Your task to perform on an android device: toggle show notifications on the lock screen Image 0: 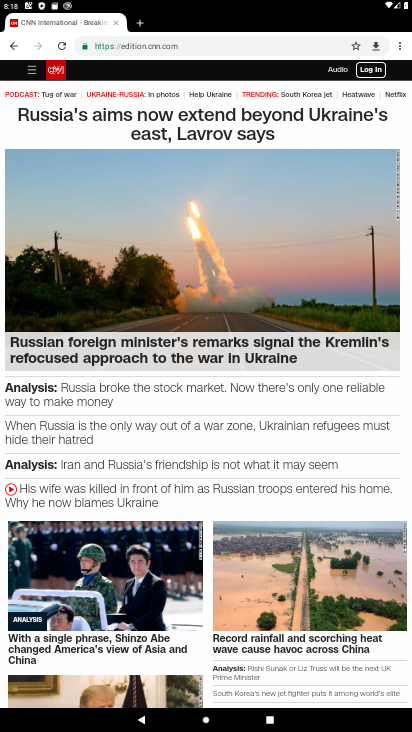
Step 0: press home button
Your task to perform on an android device: toggle show notifications on the lock screen Image 1: 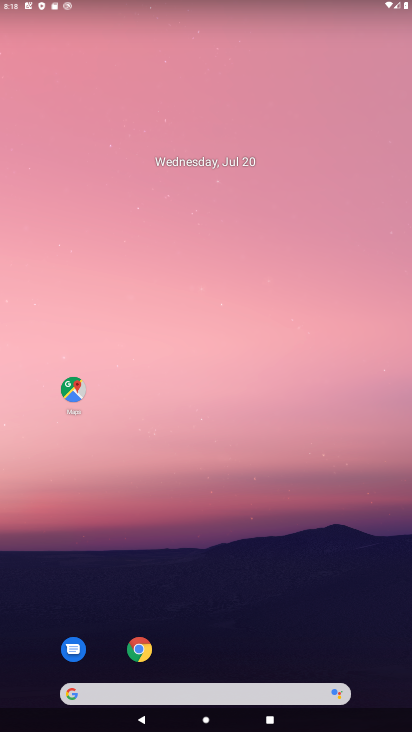
Step 1: drag from (187, 696) to (143, 63)
Your task to perform on an android device: toggle show notifications on the lock screen Image 2: 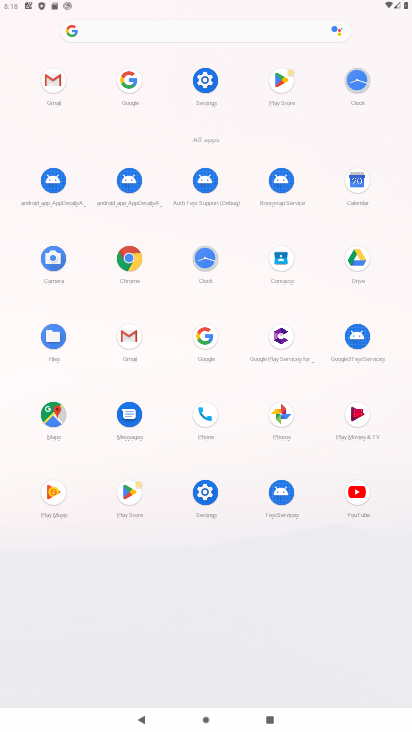
Step 2: click (205, 79)
Your task to perform on an android device: toggle show notifications on the lock screen Image 3: 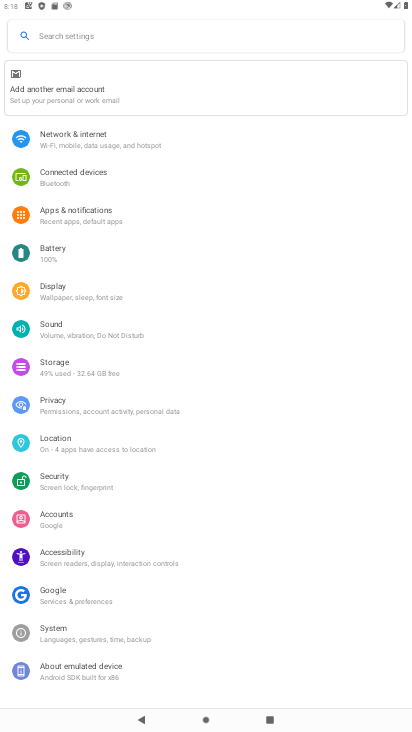
Step 3: click (75, 213)
Your task to perform on an android device: toggle show notifications on the lock screen Image 4: 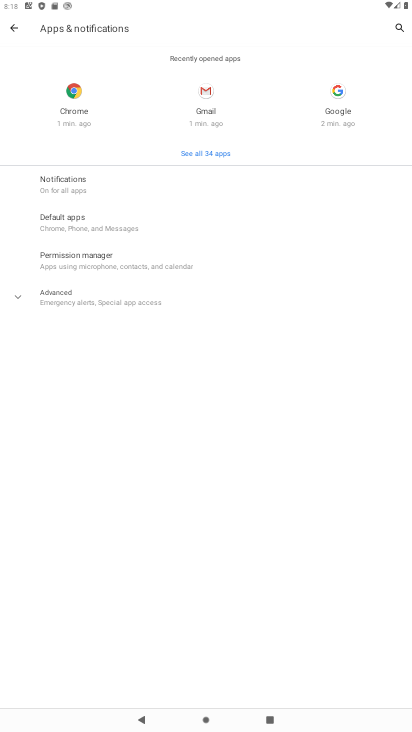
Step 4: click (64, 184)
Your task to perform on an android device: toggle show notifications on the lock screen Image 5: 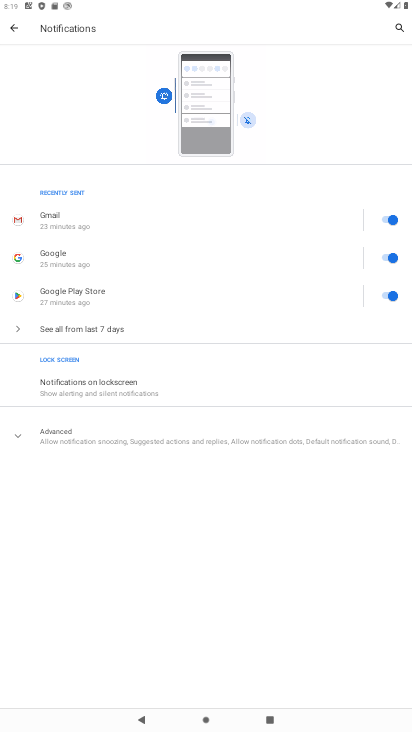
Step 5: click (85, 386)
Your task to perform on an android device: toggle show notifications on the lock screen Image 6: 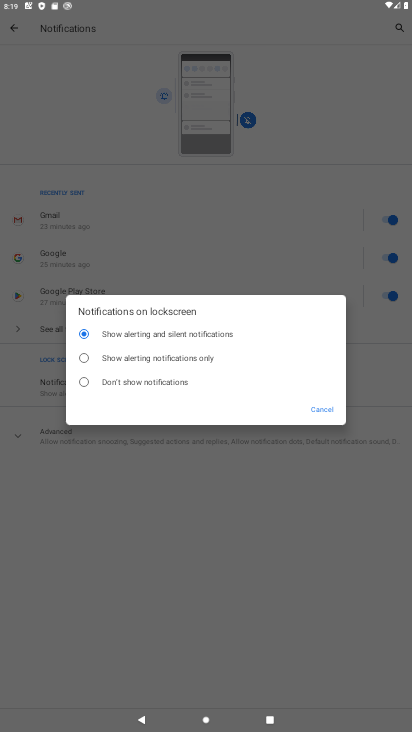
Step 6: click (82, 385)
Your task to perform on an android device: toggle show notifications on the lock screen Image 7: 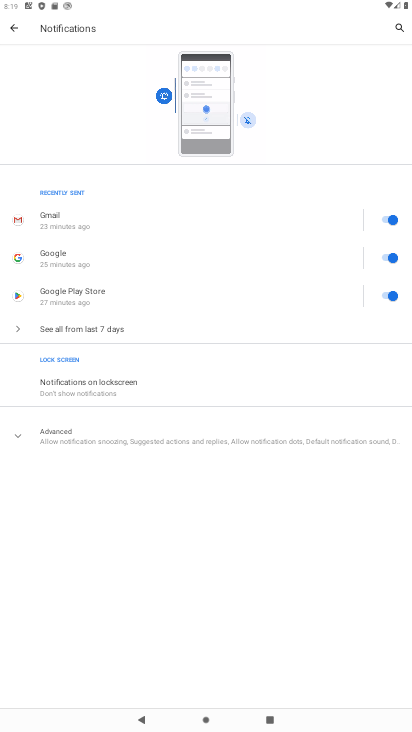
Step 7: task complete